Your task to perform on an android device: turn on notifications settings in the gmail app Image 0: 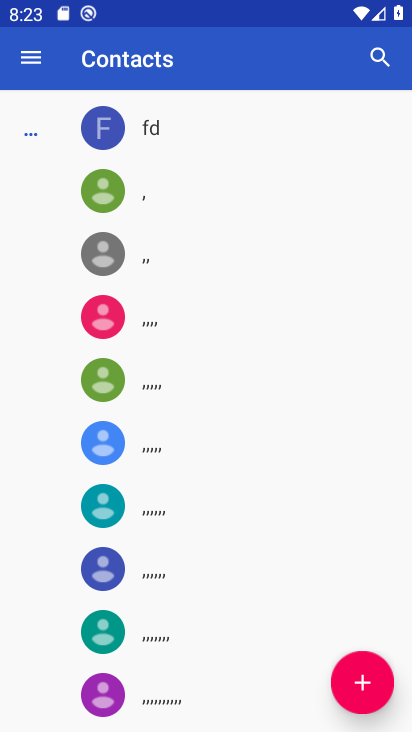
Step 0: press home button
Your task to perform on an android device: turn on notifications settings in the gmail app Image 1: 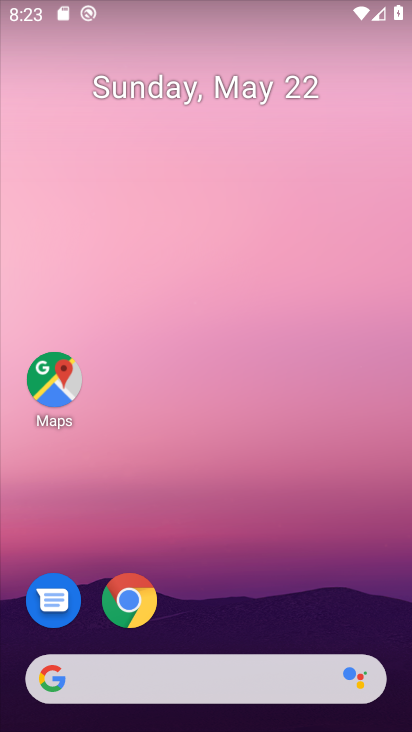
Step 1: drag from (197, 646) to (273, 187)
Your task to perform on an android device: turn on notifications settings in the gmail app Image 2: 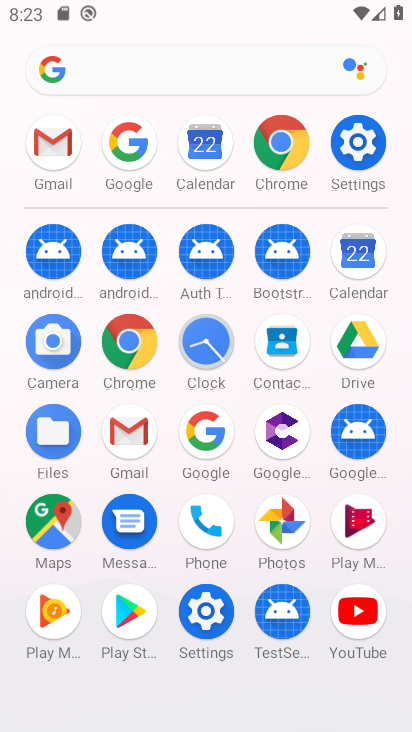
Step 2: click (46, 153)
Your task to perform on an android device: turn on notifications settings in the gmail app Image 3: 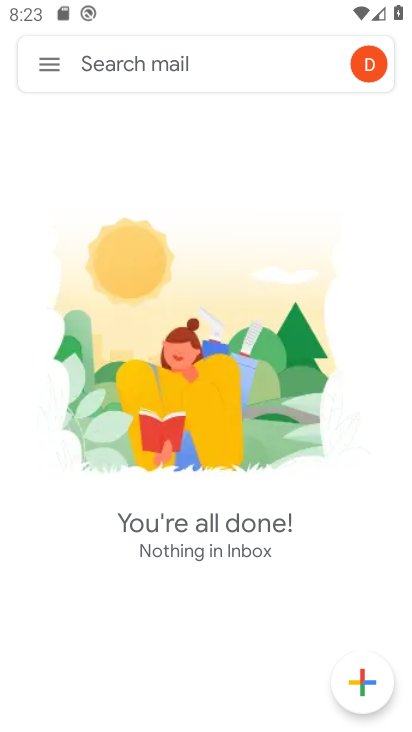
Step 3: click (30, 66)
Your task to perform on an android device: turn on notifications settings in the gmail app Image 4: 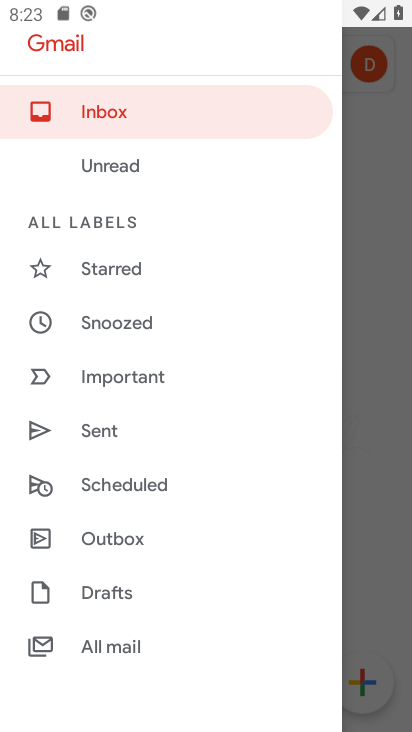
Step 4: drag from (99, 652) to (162, 352)
Your task to perform on an android device: turn on notifications settings in the gmail app Image 5: 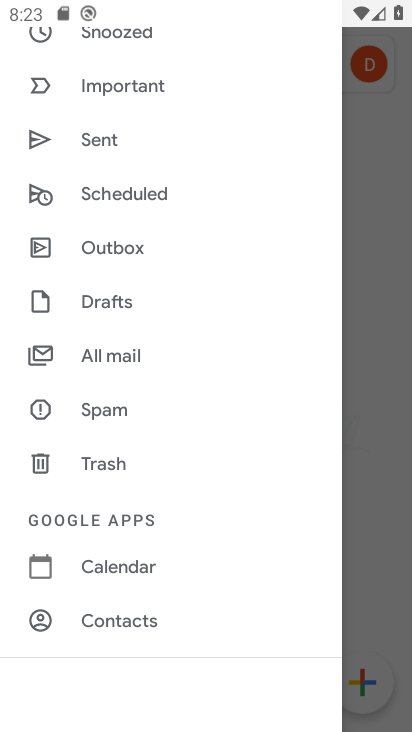
Step 5: drag from (105, 652) to (144, 426)
Your task to perform on an android device: turn on notifications settings in the gmail app Image 6: 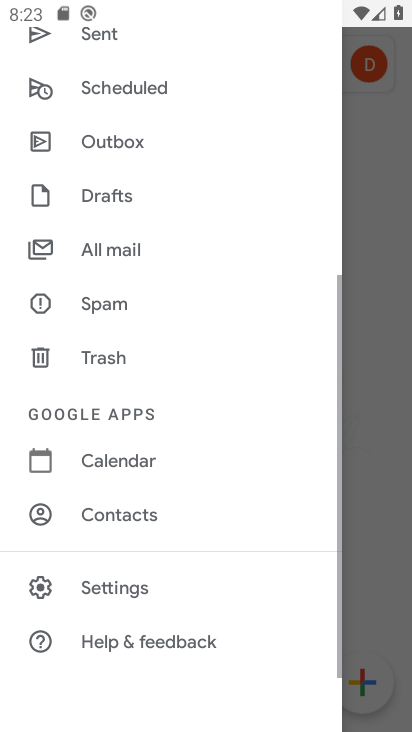
Step 6: click (130, 594)
Your task to perform on an android device: turn on notifications settings in the gmail app Image 7: 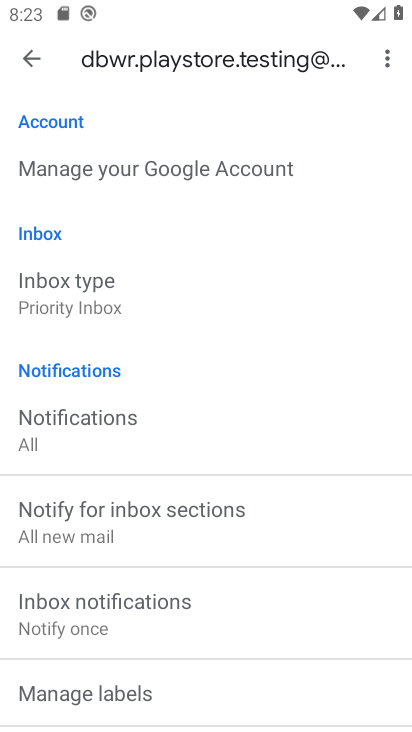
Step 7: click (28, 62)
Your task to perform on an android device: turn on notifications settings in the gmail app Image 8: 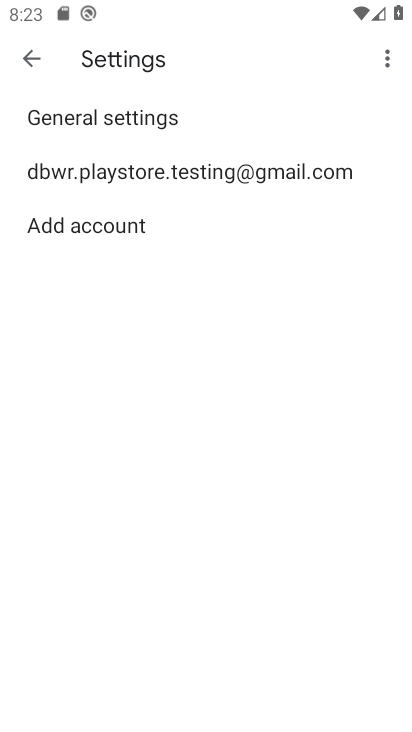
Step 8: click (76, 114)
Your task to perform on an android device: turn on notifications settings in the gmail app Image 9: 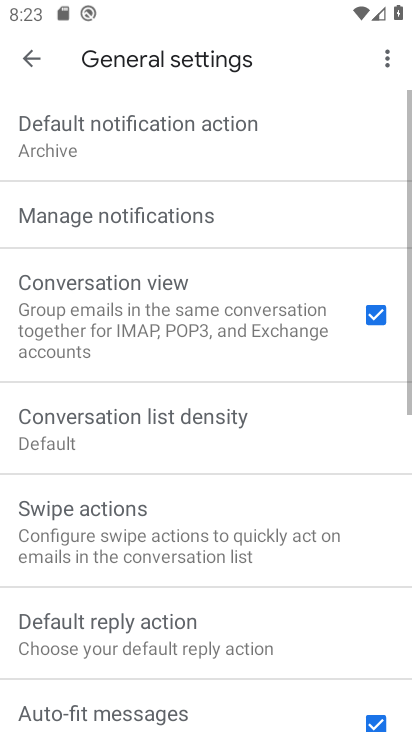
Step 9: click (87, 221)
Your task to perform on an android device: turn on notifications settings in the gmail app Image 10: 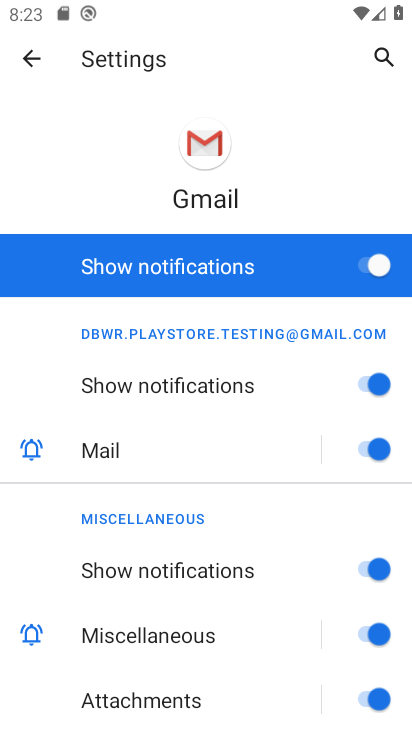
Step 10: task complete